Your task to perform on an android device: Find coffee shops on Maps Image 0: 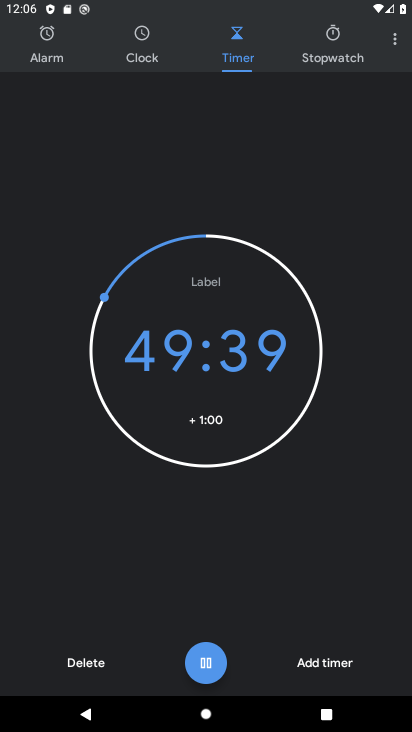
Step 0: press home button
Your task to perform on an android device: Find coffee shops on Maps Image 1: 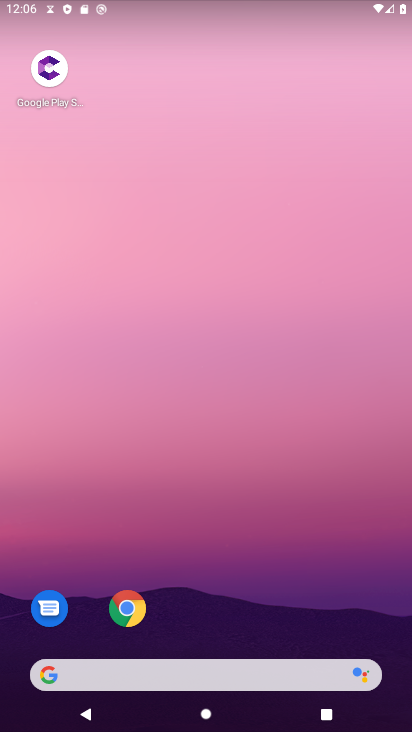
Step 1: drag from (246, 625) to (209, 47)
Your task to perform on an android device: Find coffee shops on Maps Image 2: 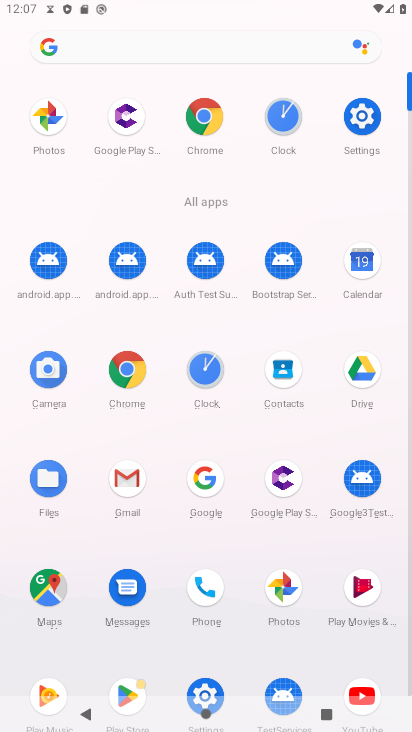
Step 2: click (50, 592)
Your task to perform on an android device: Find coffee shops on Maps Image 3: 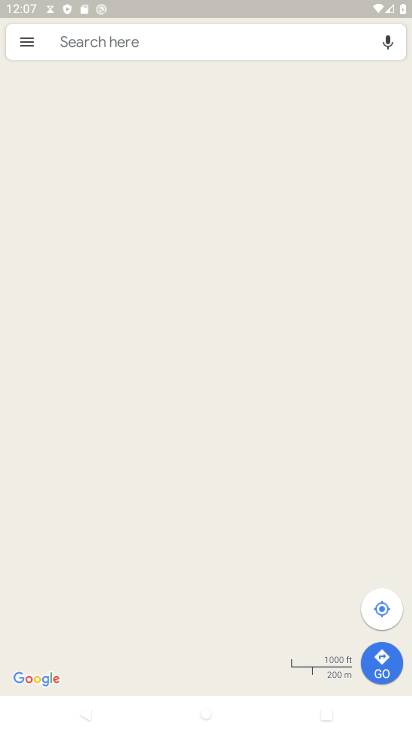
Step 3: click (274, 42)
Your task to perform on an android device: Find coffee shops on Maps Image 4: 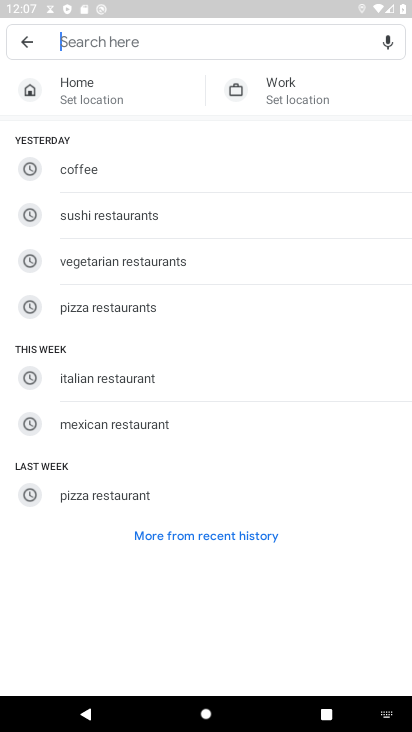
Step 4: click (189, 166)
Your task to perform on an android device: Find coffee shops on Maps Image 5: 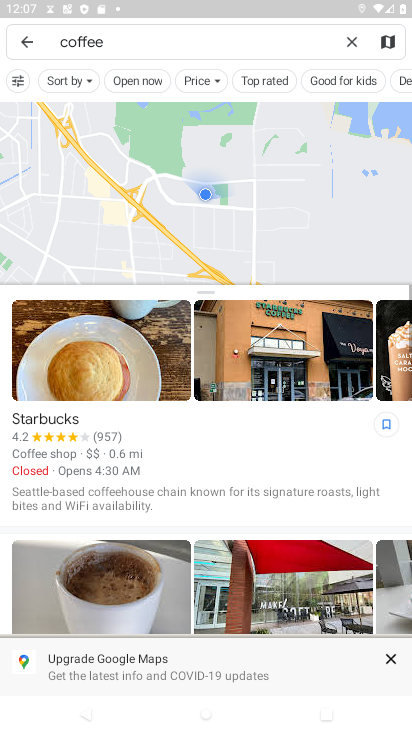
Step 5: task complete